Your task to perform on an android device: delete browsing data in the chrome app Image 0: 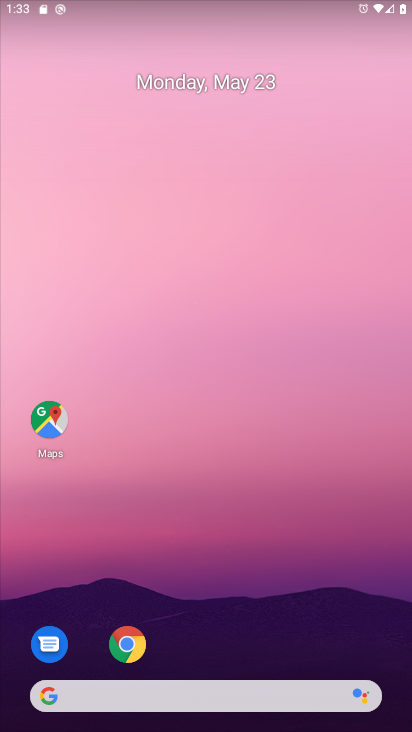
Step 0: click (134, 651)
Your task to perform on an android device: delete browsing data in the chrome app Image 1: 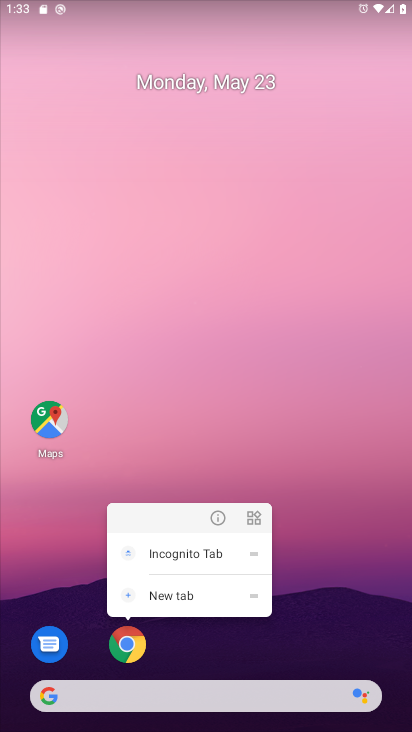
Step 1: click (111, 650)
Your task to perform on an android device: delete browsing data in the chrome app Image 2: 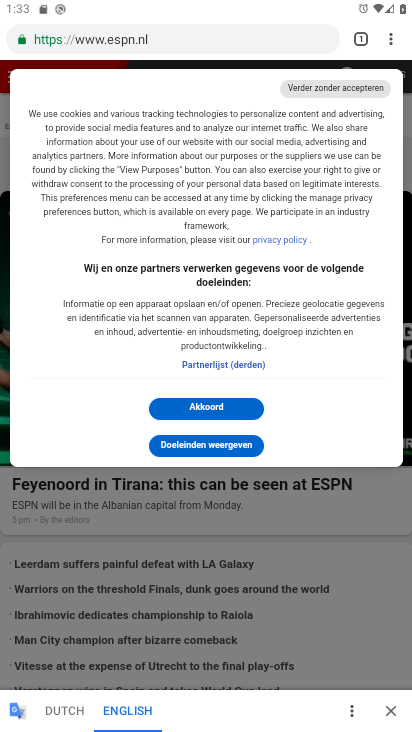
Step 2: click (390, 46)
Your task to perform on an android device: delete browsing data in the chrome app Image 3: 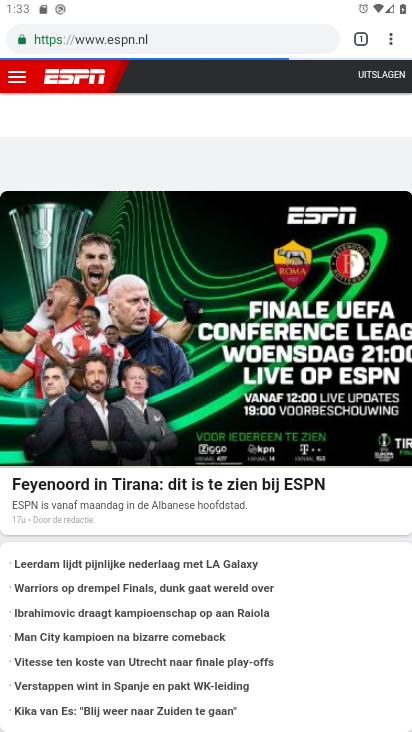
Step 3: click (391, 45)
Your task to perform on an android device: delete browsing data in the chrome app Image 4: 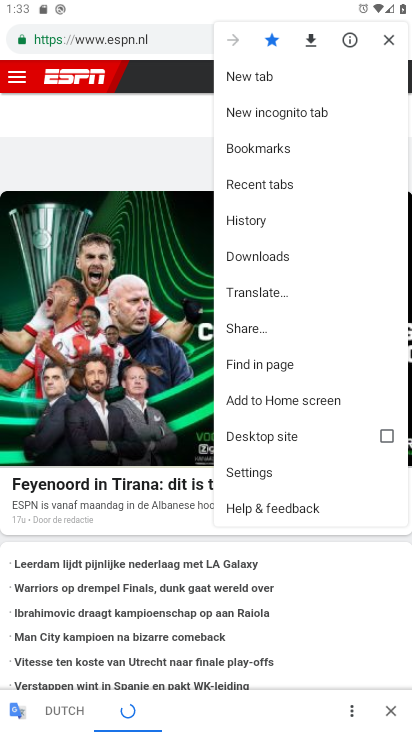
Step 4: click (252, 217)
Your task to perform on an android device: delete browsing data in the chrome app Image 5: 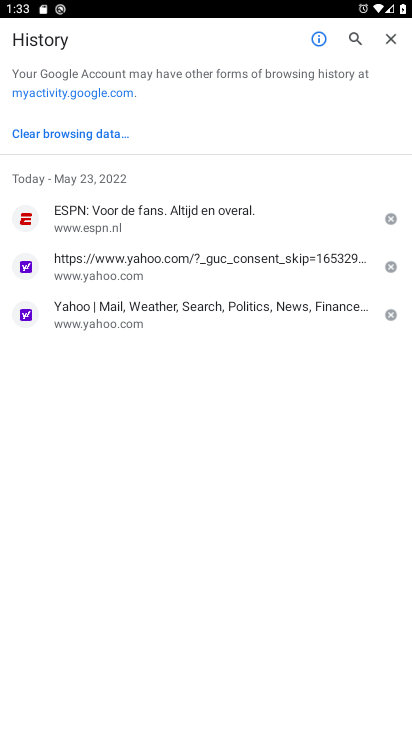
Step 5: click (37, 137)
Your task to perform on an android device: delete browsing data in the chrome app Image 6: 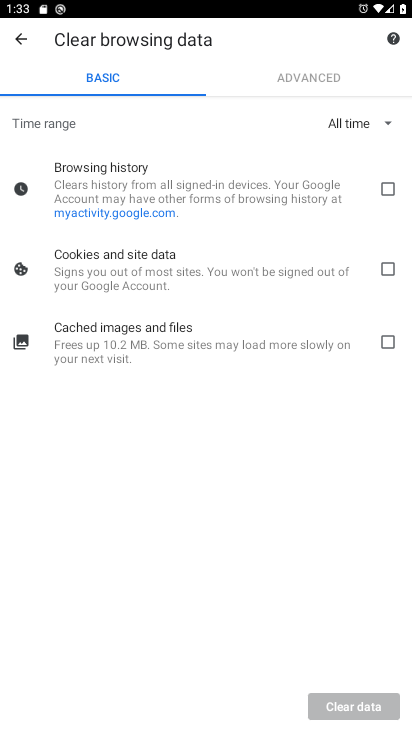
Step 6: click (385, 194)
Your task to perform on an android device: delete browsing data in the chrome app Image 7: 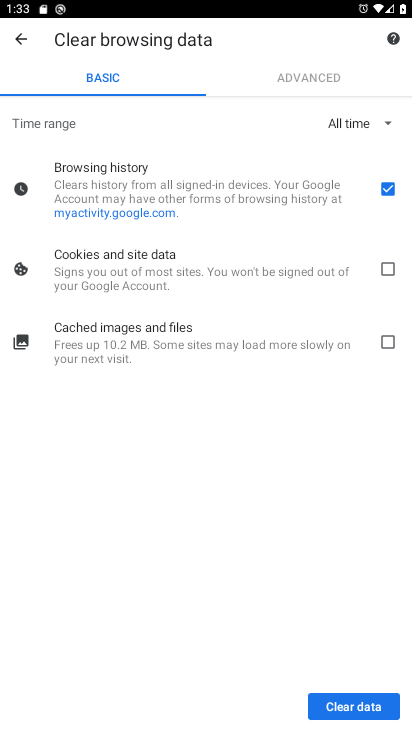
Step 7: click (385, 275)
Your task to perform on an android device: delete browsing data in the chrome app Image 8: 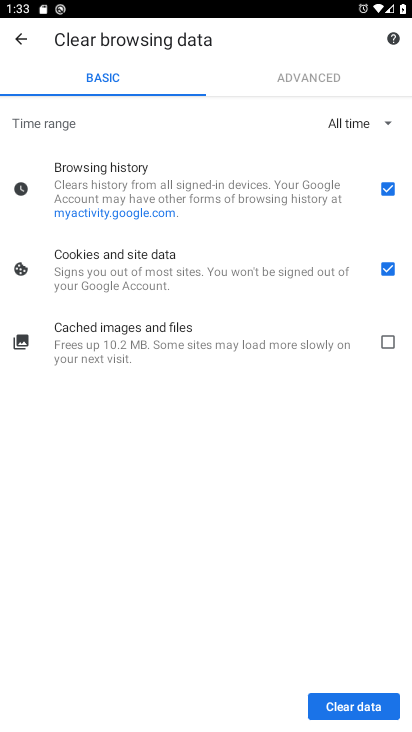
Step 8: click (384, 346)
Your task to perform on an android device: delete browsing data in the chrome app Image 9: 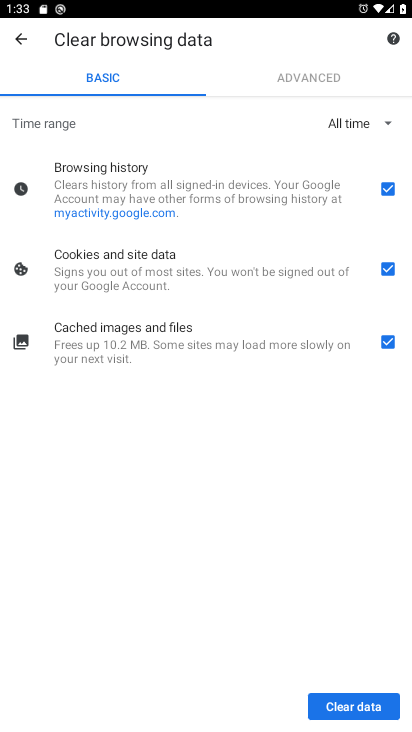
Step 9: click (336, 715)
Your task to perform on an android device: delete browsing data in the chrome app Image 10: 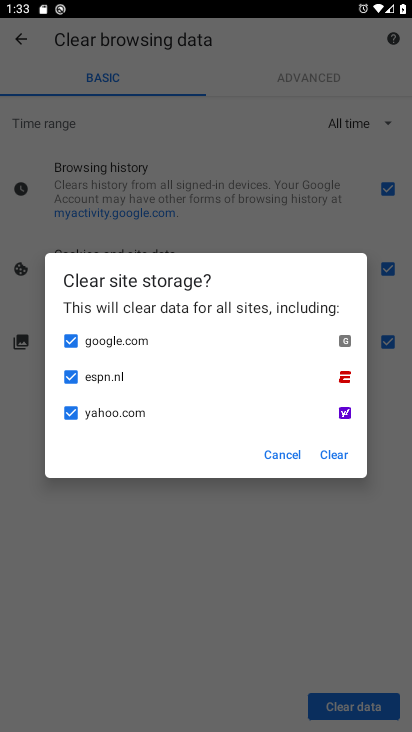
Step 10: click (331, 460)
Your task to perform on an android device: delete browsing data in the chrome app Image 11: 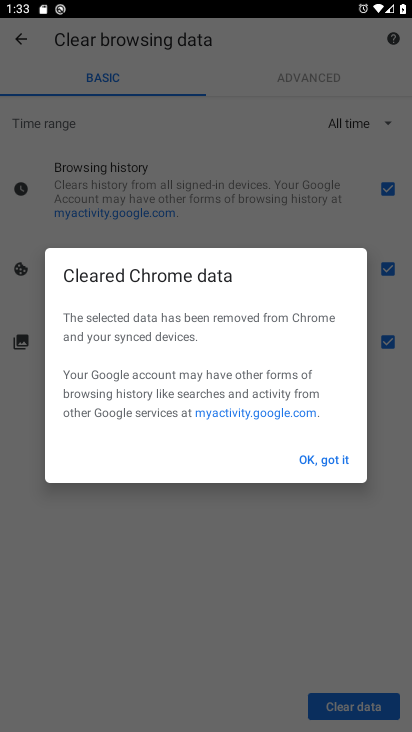
Step 11: click (331, 460)
Your task to perform on an android device: delete browsing data in the chrome app Image 12: 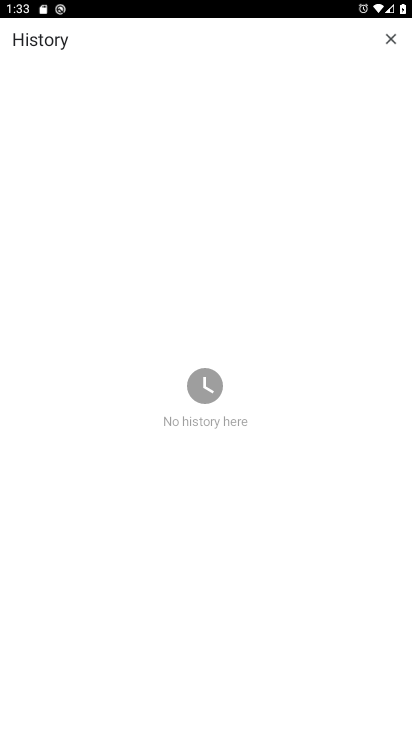
Step 12: task complete